Your task to perform on an android device: turn on airplane mode Image 0: 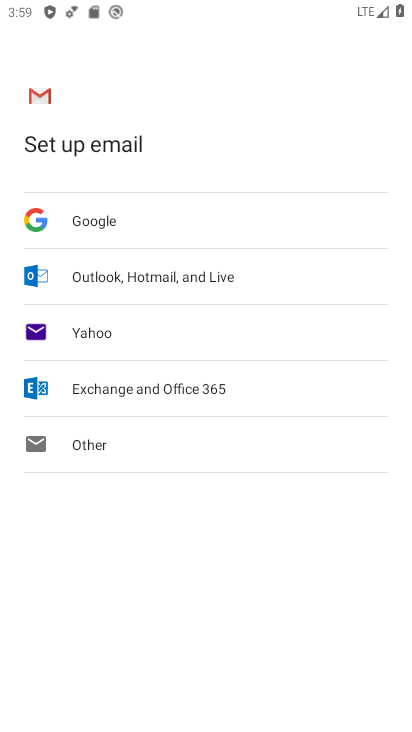
Step 0: drag from (342, 2) to (368, 413)
Your task to perform on an android device: turn on airplane mode Image 1: 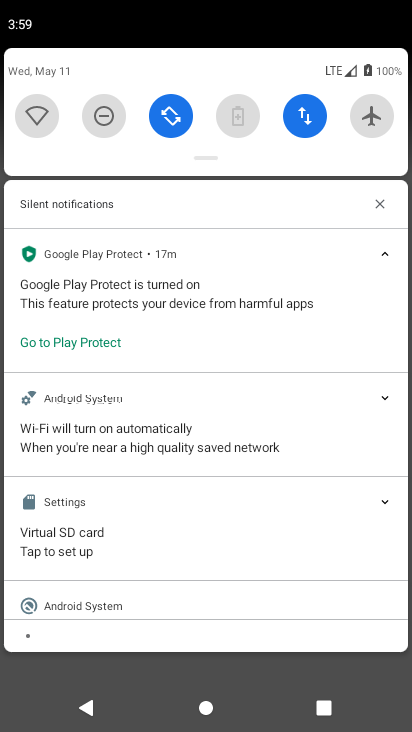
Step 1: click (378, 110)
Your task to perform on an android device: turn on airplane mode Image 2: 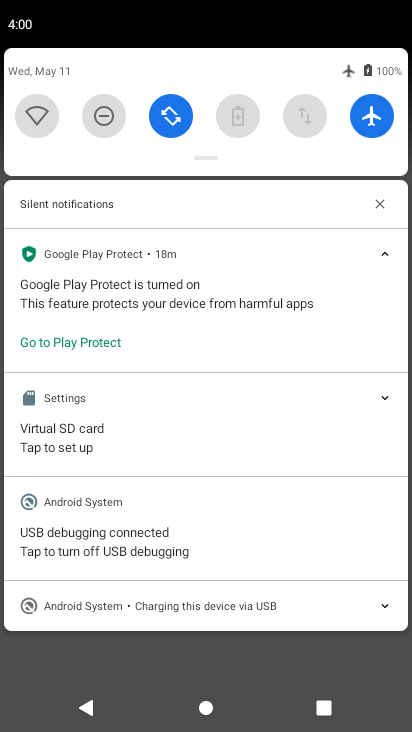
Step 2: task complete